Your task to perform on an android device: Open the phone app and click the voicemail tab. Image 0: 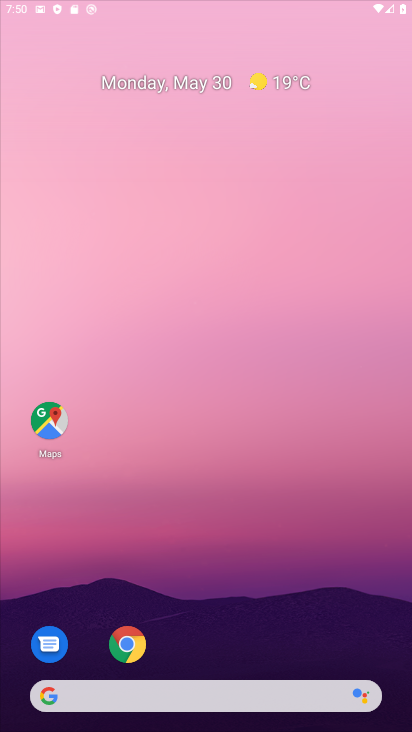
Step 0: click (349, 0)
Your task to perform on an android device: Open the phone app and click the voicemail tab. Image 1: 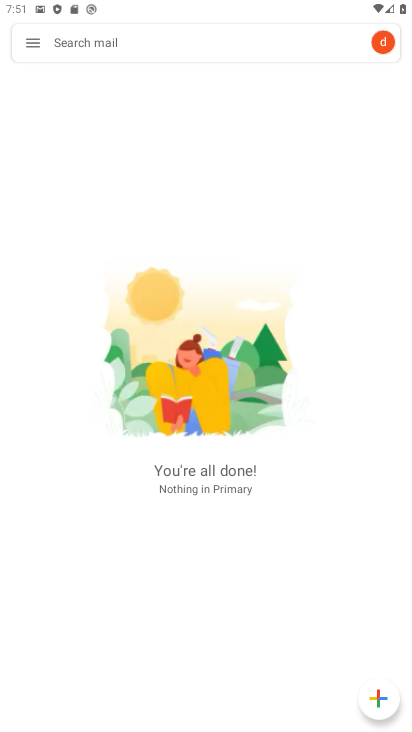
Step 1: drag from (238, 514) to (314, 296)
Your task to perform on an android device: Open the phone app and click the voicemail tab. Image 2: 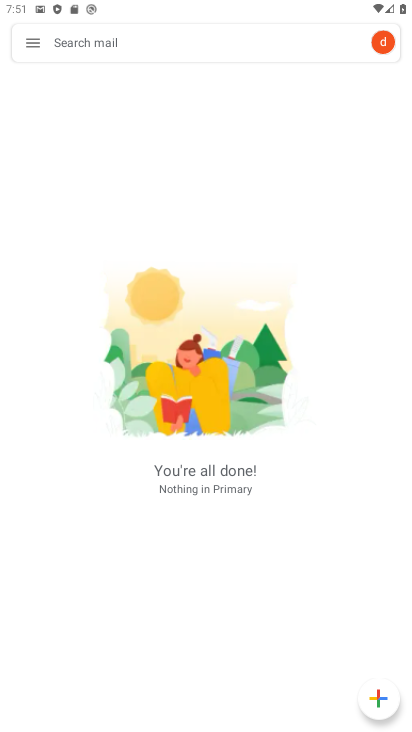
Step 2: press home button
Your task to perform on an android device: Open the phone app and click the voicemail tab. Image 3: 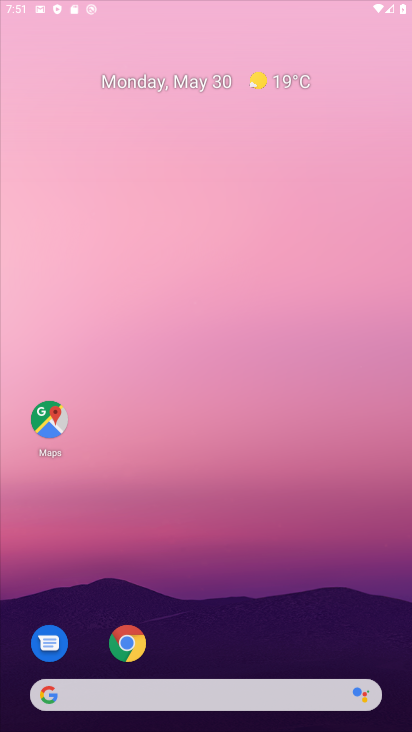
Step 3: drag from (216, 615) to (369, 112)
Your task to perform on an android device: Open the phone app and click the voicemail tab. Image 4: 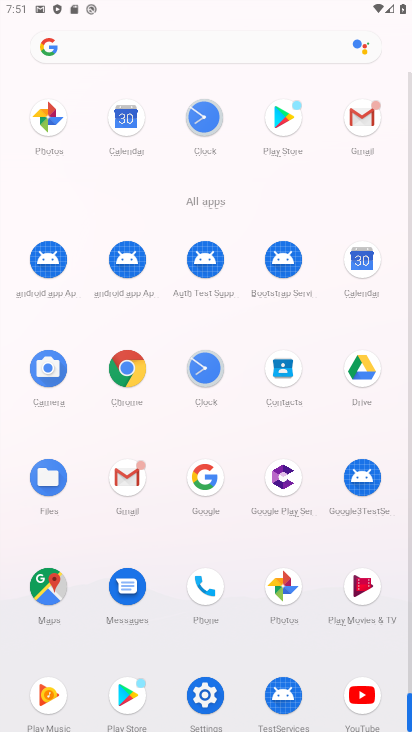
Step 4: click (202, 582)
Your task to perform on an android device: Open the phone app and click the voicemail tab. Image 5: 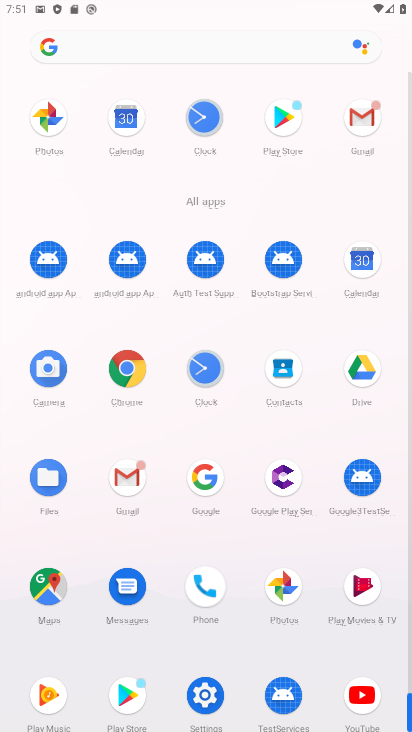
Step 5: click (202, 577)
Your task to perform on an android device: Open the phone app and click the voicemail tab. Image 6: 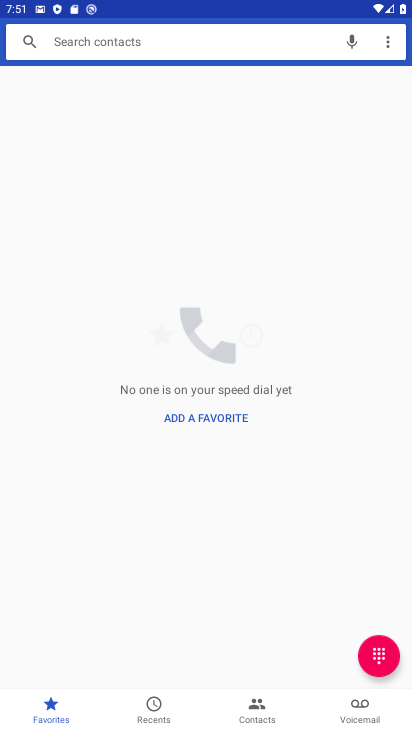
Step 6: click (362, 707)
Your task to perform on an android device: Open the phone app and click the voicemail tab. Image 7: 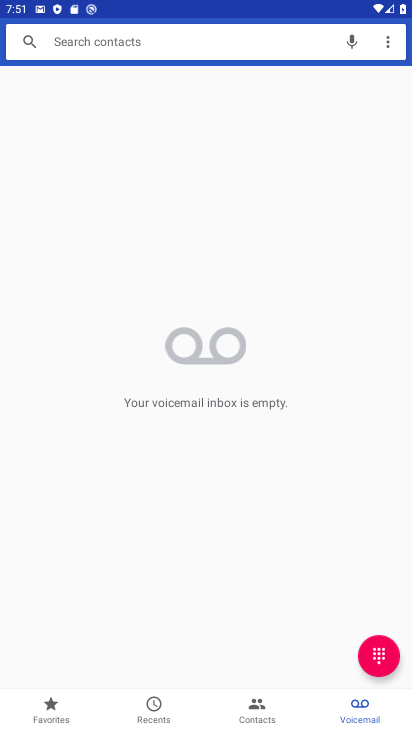
Step 7: task complete